Your task to perform on an android device: open app "Speedtest by Ookla" (install if not already installed) Image 0: 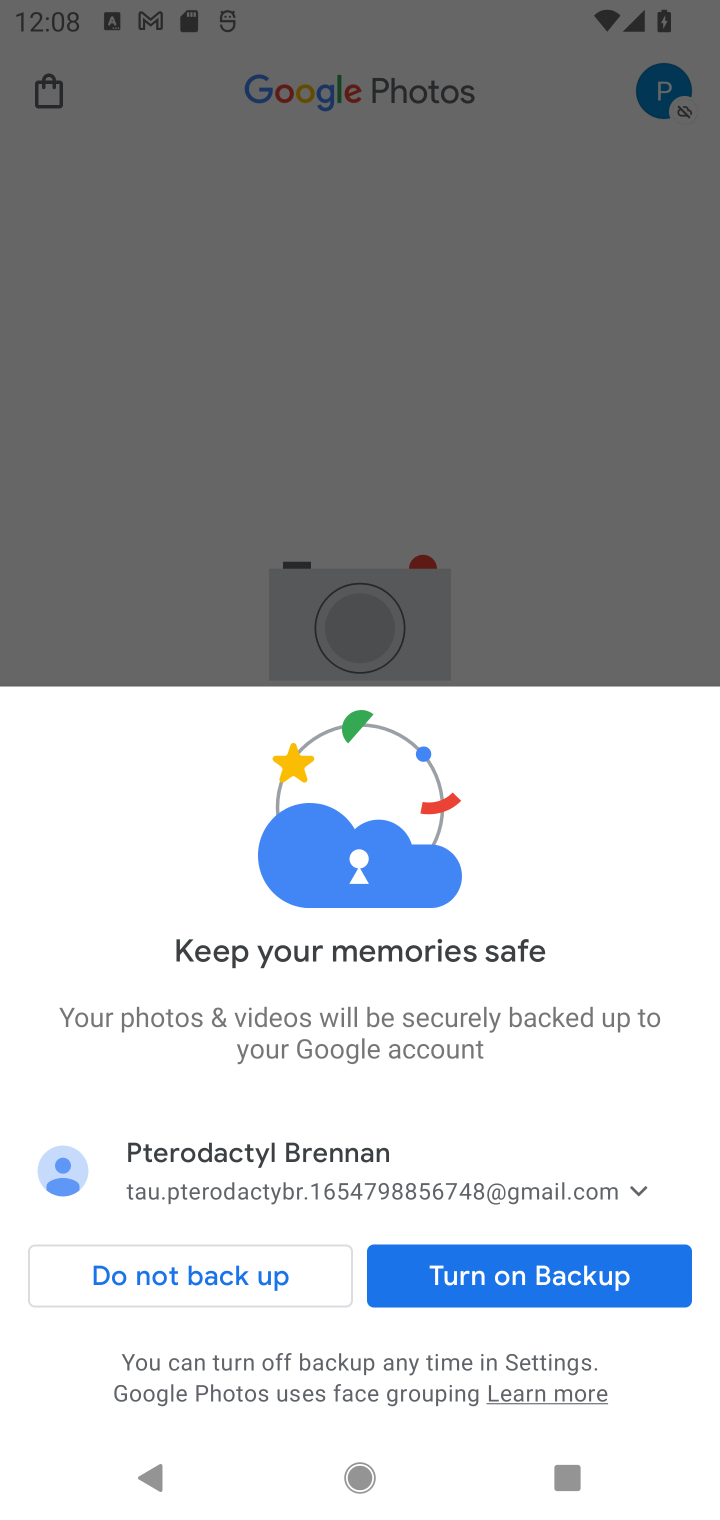
Step 0: press home button
Your task to perform on an android device: open app "Speedtest by Ookla" (install if not already installed) Image 1: 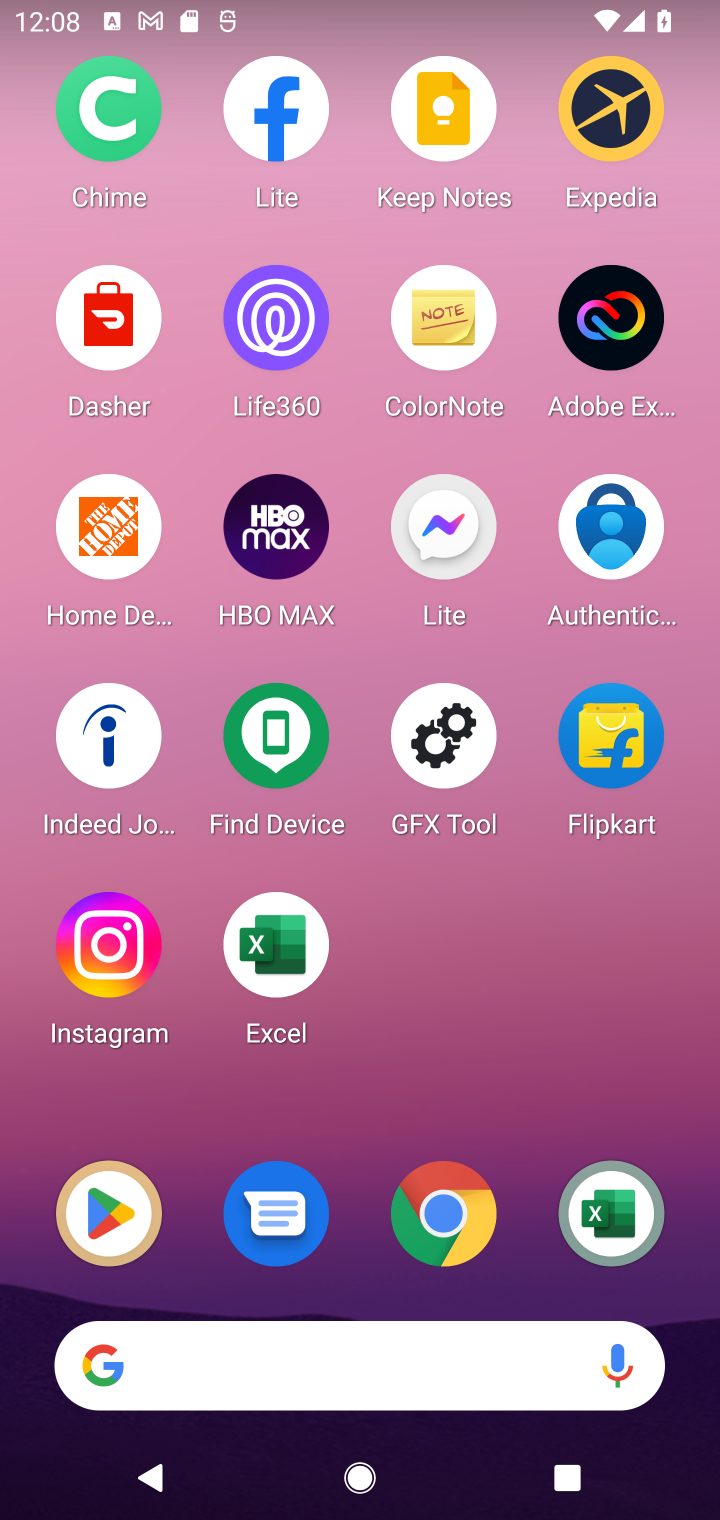
Step 1: click (118, 1213)
Your task to perform on an android device: open app "Speedtest by Ookla" (install if not already installed) Image 2: 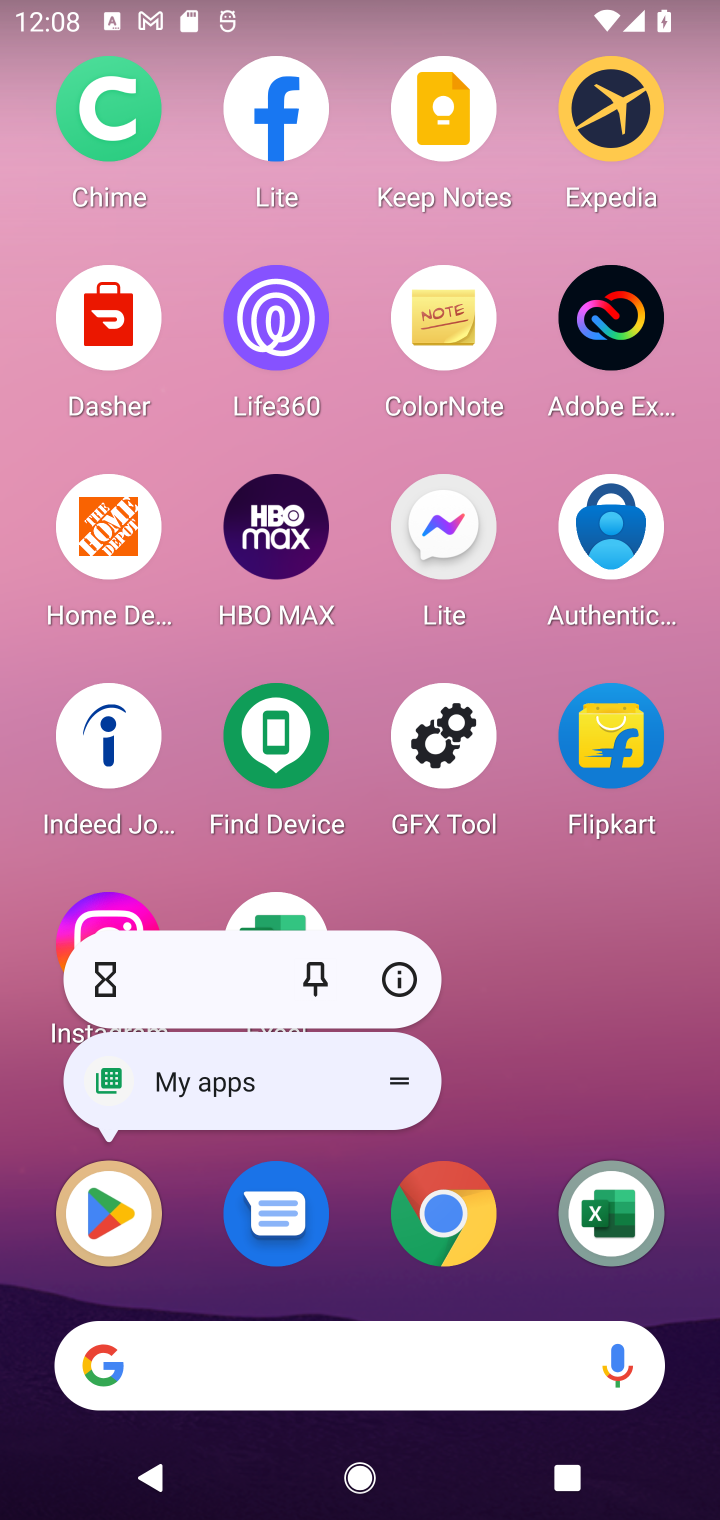
Step 2: click (109, 1221)
Your task to perform on an android device: open app "Speedtest by Ookla" (install if not already installed) Image 3: 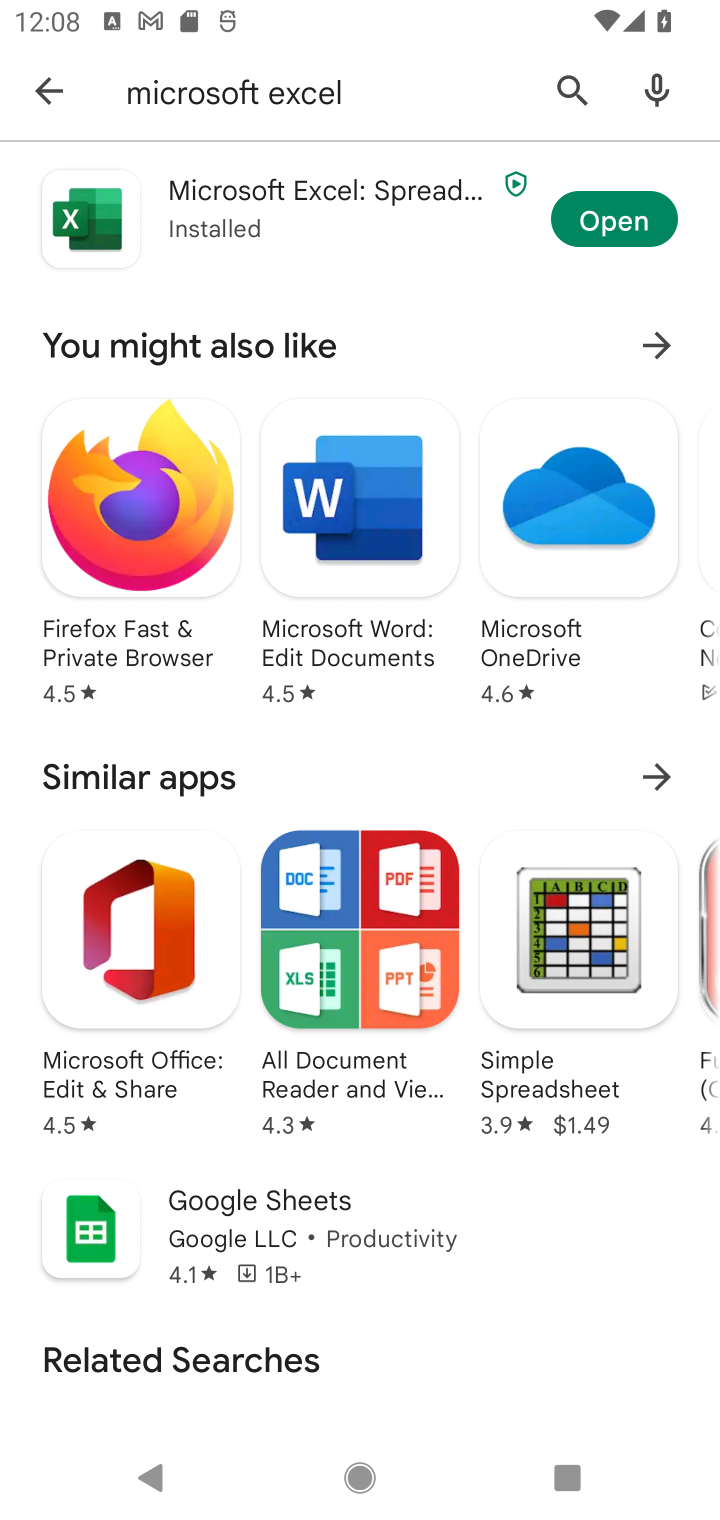
Step 3: click (49, 84)
Your task to perform on an android device: open app "Speedtest by Ookla" (install if not already installed) Image 4: 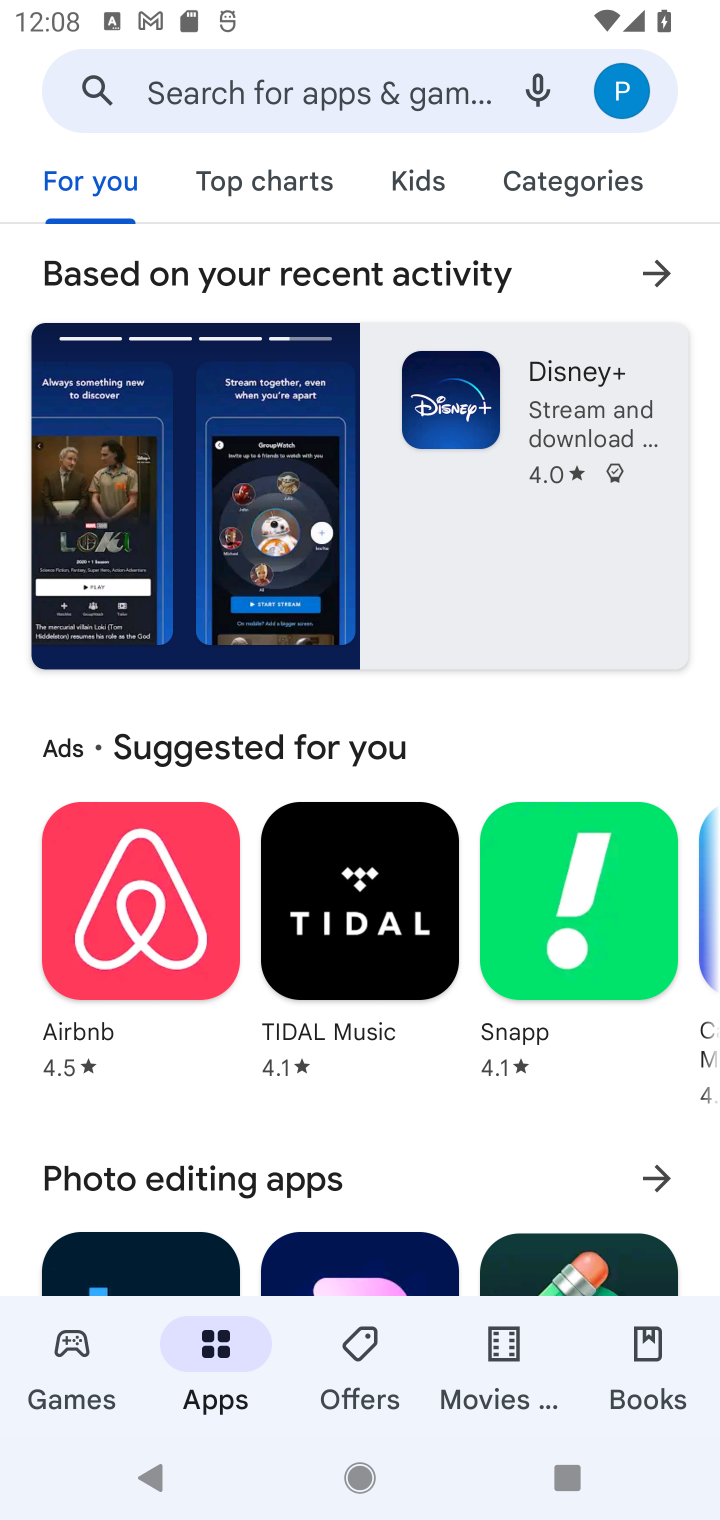
Step 4: click (338, 84)
Your task to perform on an android device: open app "Speedtest by Ookla" (install if not already installed) Image 5: 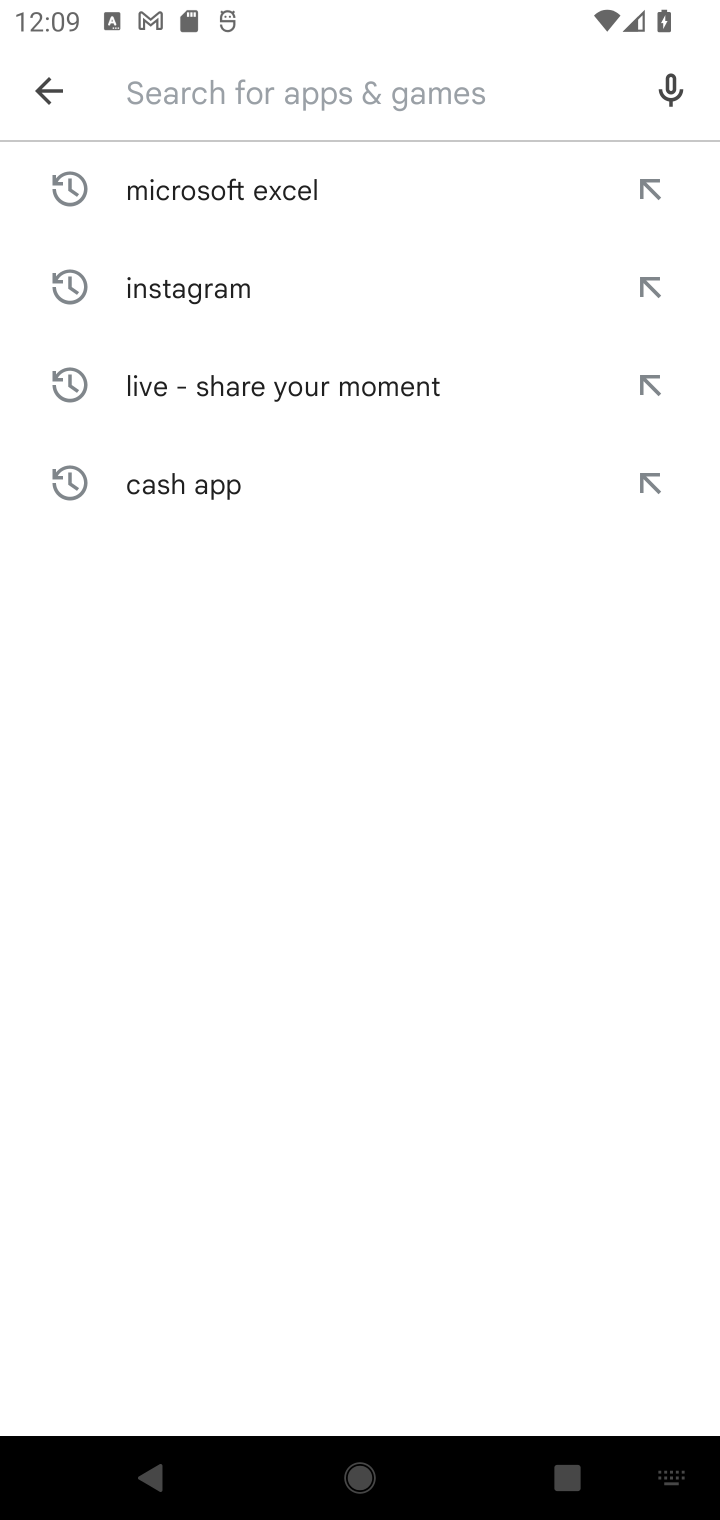
Step 5: type "Speedtest by Ookla"
Your task to perform on an android device: open app "Speedtest by Ookla" (install if not already installed) Image 6: 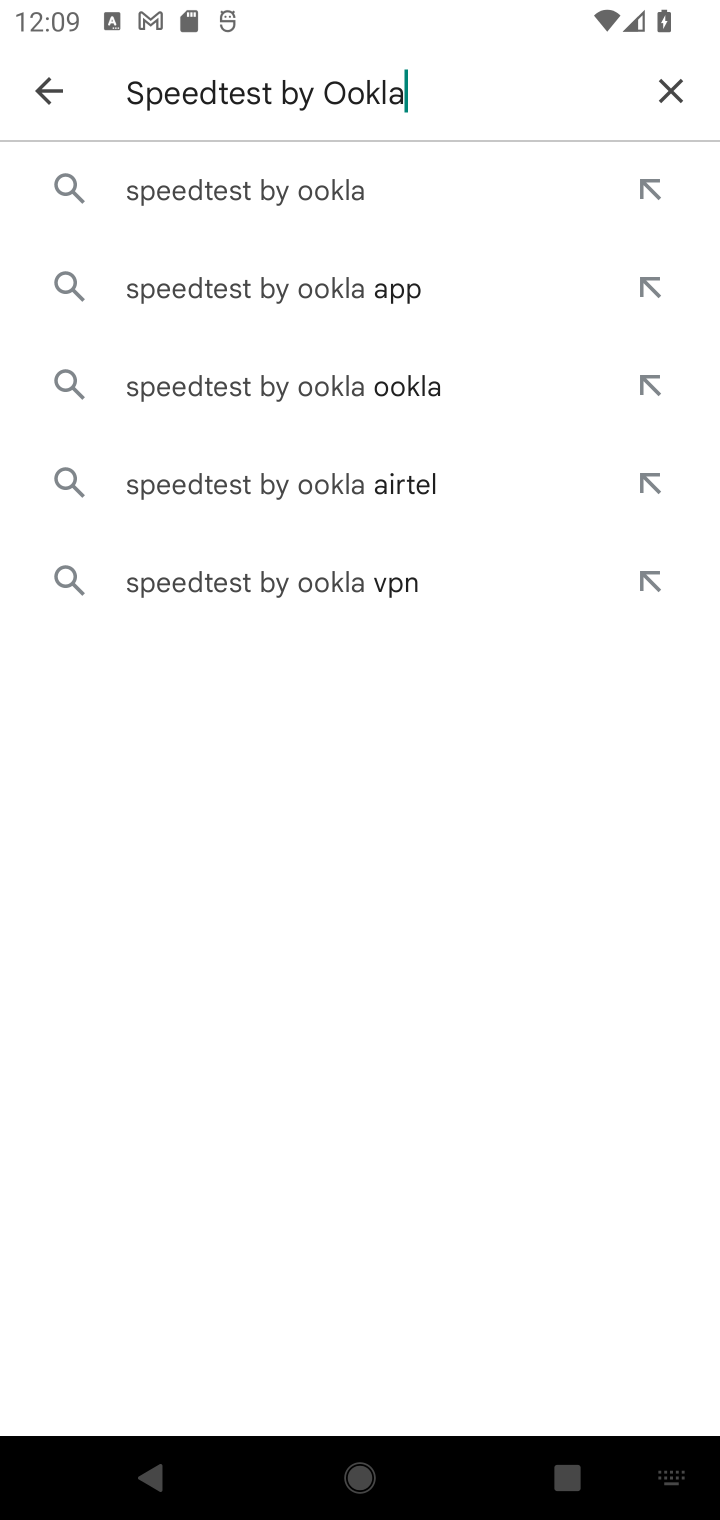
Step 6: click (280, 197)
Your task to perform on an android device: open app "Speedtest by Ookla" (install if not already installed) Image 7: 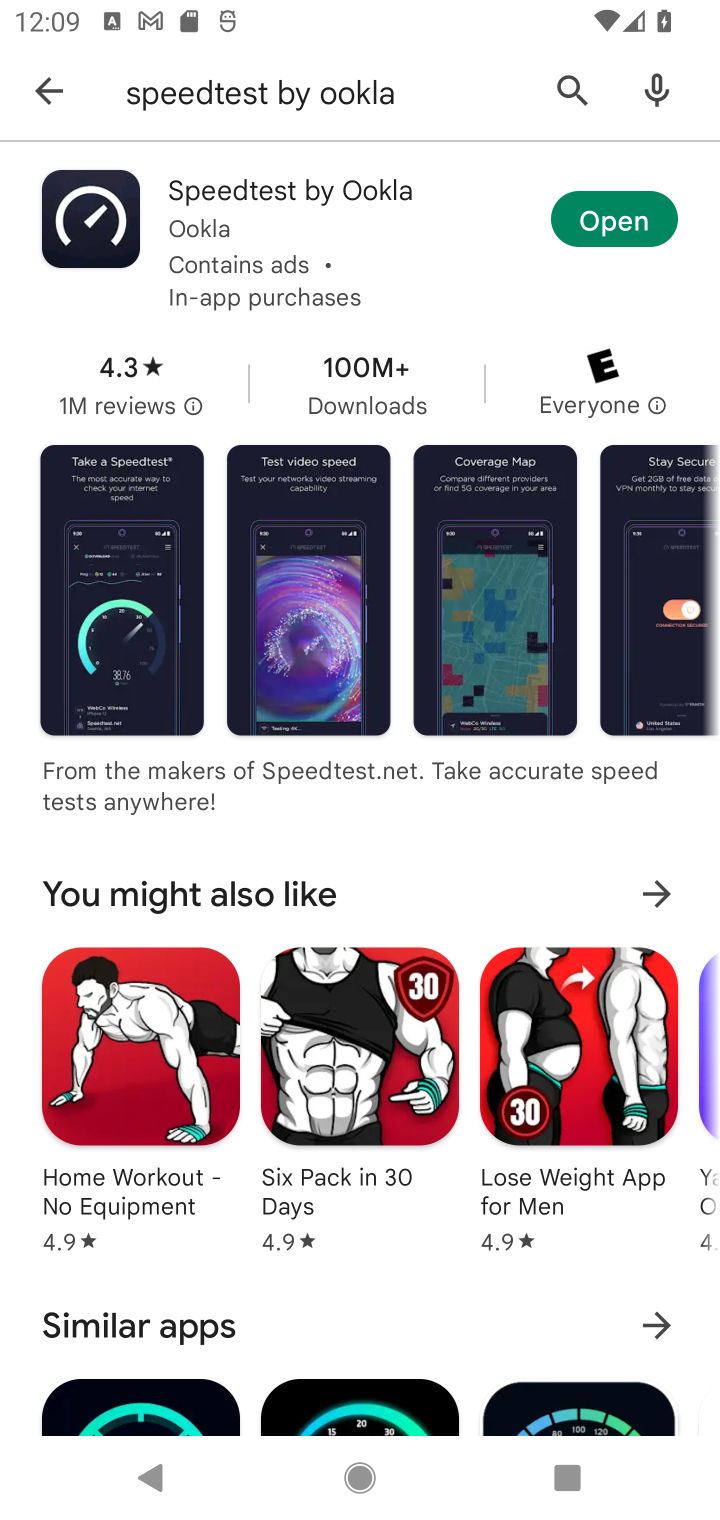
Step 7: click (611, 228)
Your task to perform on an android device: open app "Speedtest by Ookla" (install if not already installed) Image 8: 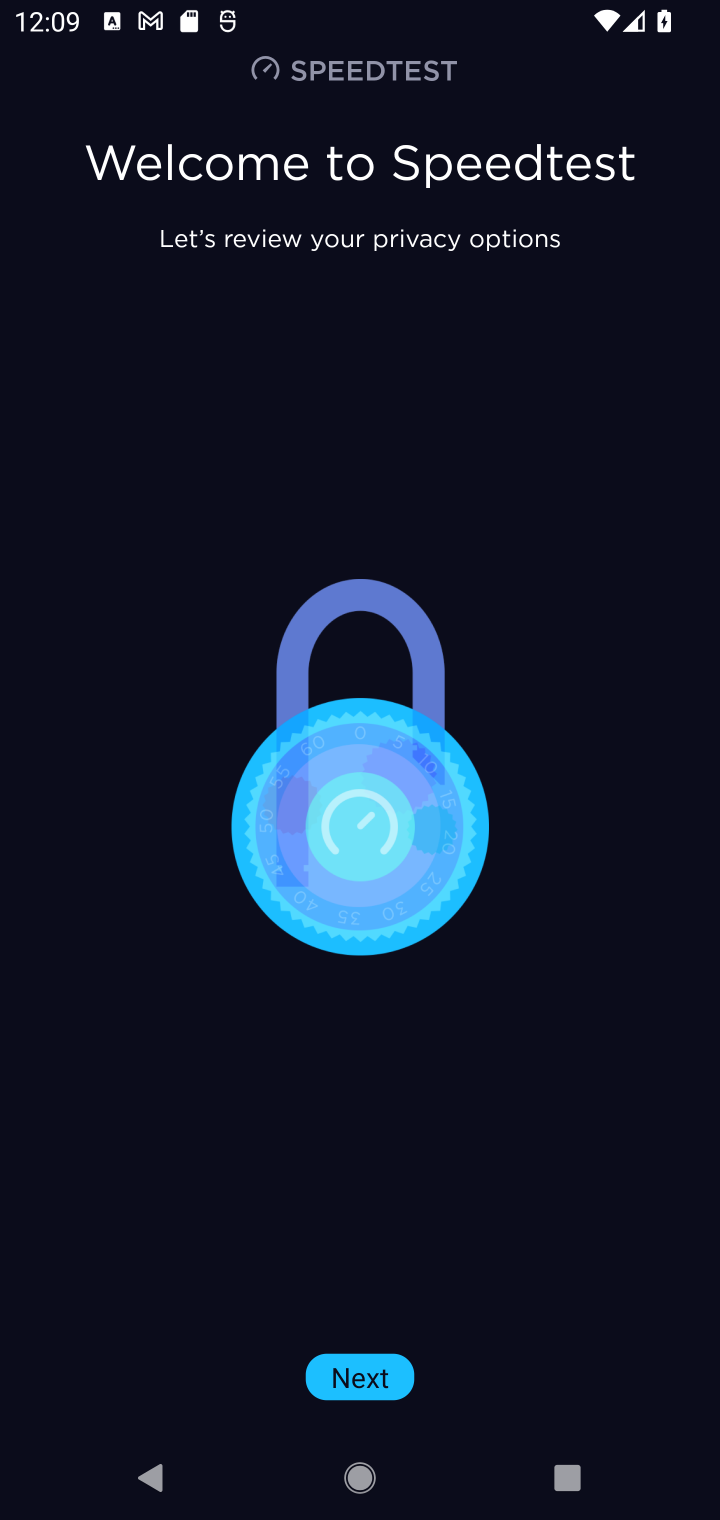
Step 8: task complete